Your task to perform on an android device: delete location history Image 0: 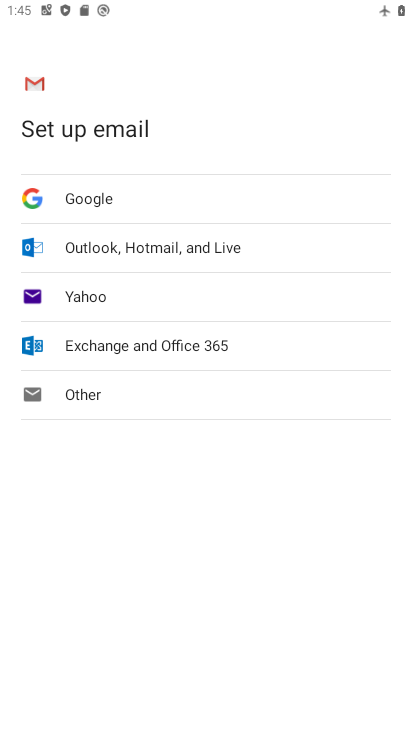
Step 0: press home button
Your task to perform on an android device: delete location history Image 1: 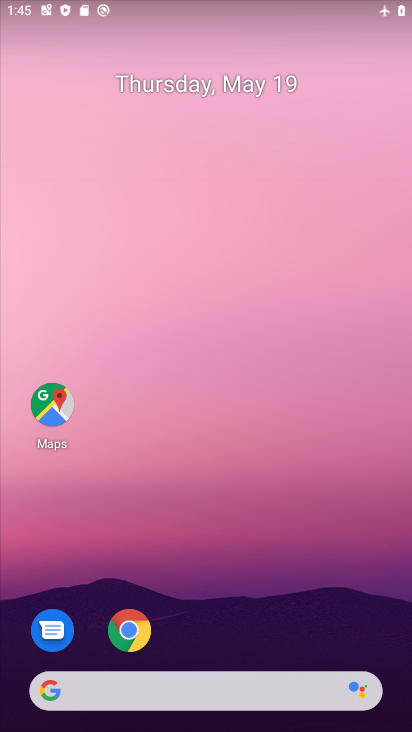
Step 1: drag from (225, 704) to (174, 46)
Your task to perform on an android device: delete location history Image 2: 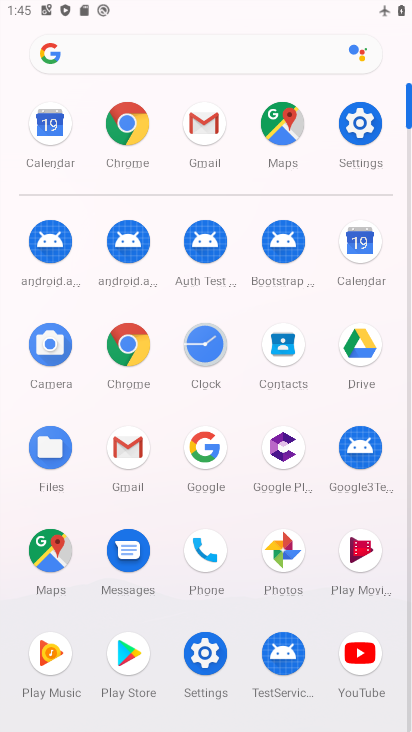
Step 2: click (49, 566)
Your task to perform on an android device: delete location history Image 3: 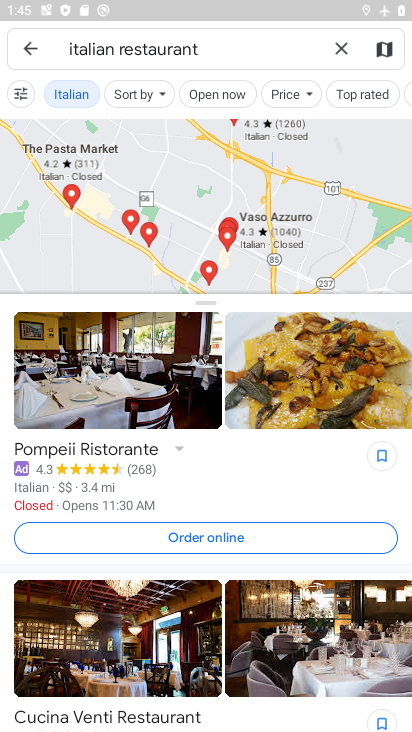
Step 3: click (23, 48)
Your task to perform on an android device: delete location history Image 4: 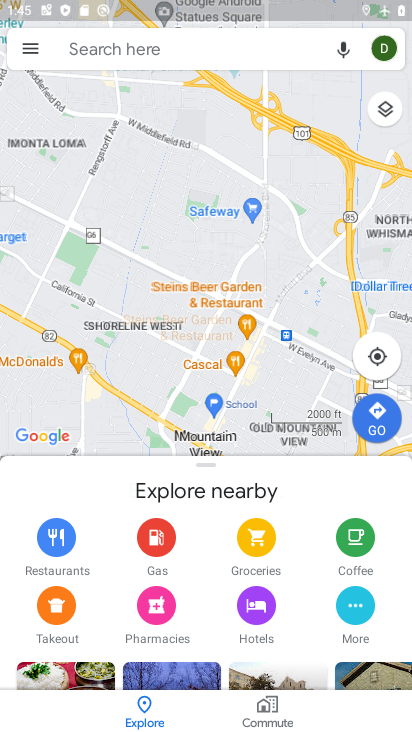
Step 4: click (23, 49)
Your task to perform on an android device: delete location history Image 5: 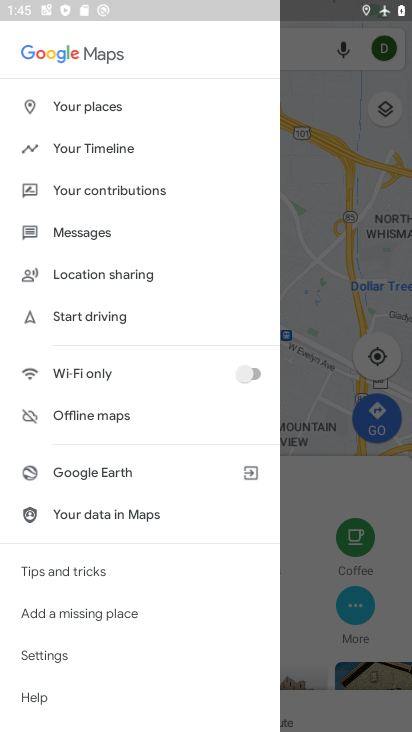
Step 5: click (63, 155)
Your task to perform on an android device: delete location history Image 6: 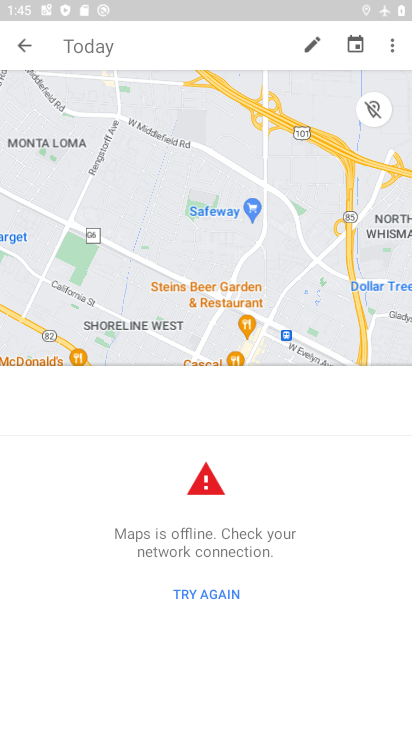
Step 6: click (390, 46)
Your task to perform on an android device: delete location history Image 7: 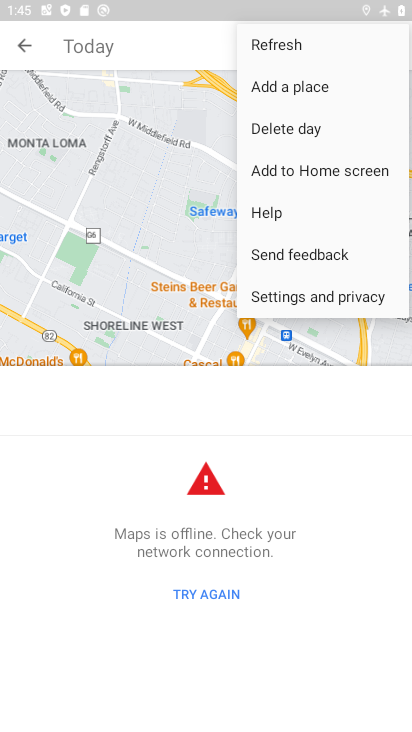
Step 7: click (312, 295)
Your task to perform on an android device: delete location history Image 8: 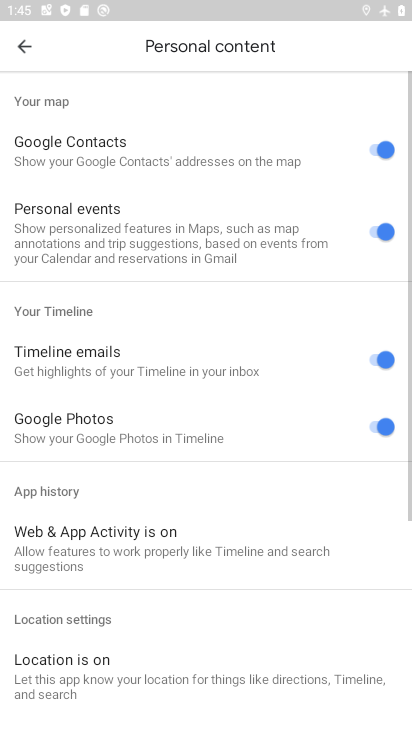
Step 8: drag from (214, 582) to (185, 145)
Your task to perform on an android device: delete location history Image 9: 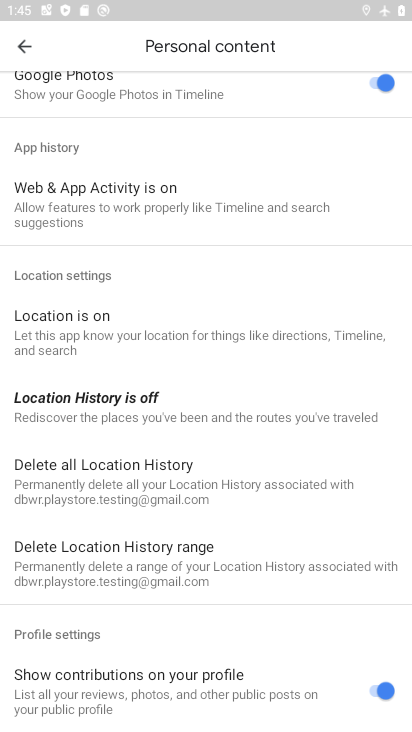
Step 9: click (193, 490)
Your task to perform on an android device: delete location history Image 10: 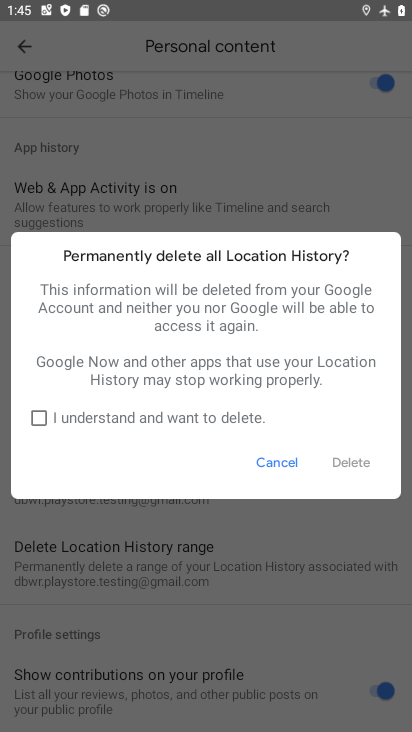
Step 10: click (36, 420)
Your task to perform on an android device: delete location history Image 11: 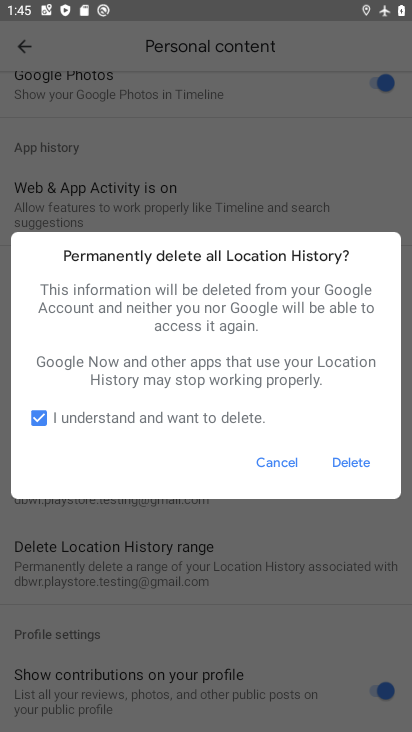
Step 11: click (347, 452)
Your task to perform on an android device: delete location history Image 12: 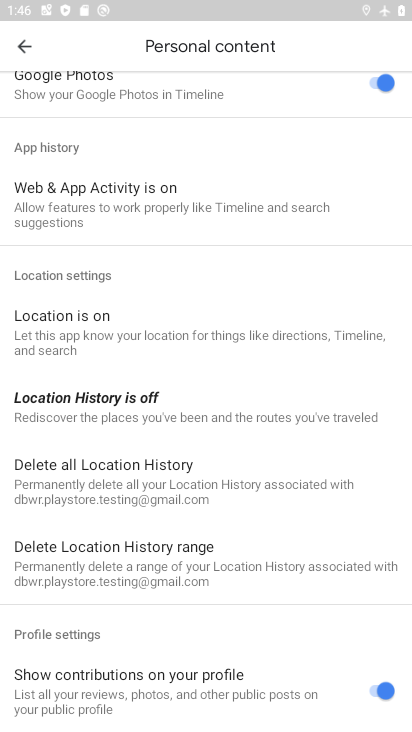
Step 12: task complete